Your task to perform on an android device: allow notifications from all sites in the chrome app Image 0: 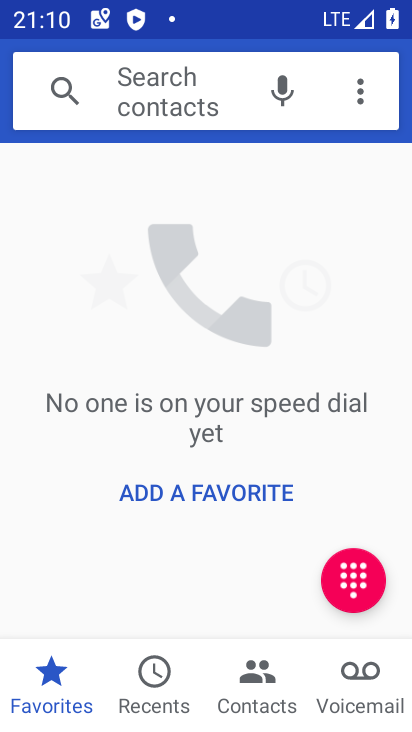
Step 0: press home button
Your task to perform on an android device: allow notifications from all sites in the chrome app Image 1: 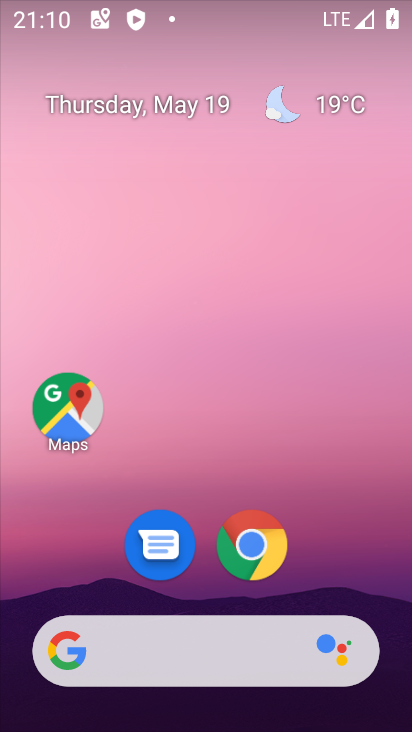
Step 1: click (264, 552)
Your task to perform on an android device: allow notifications from all sites in the chrome app Image 2: 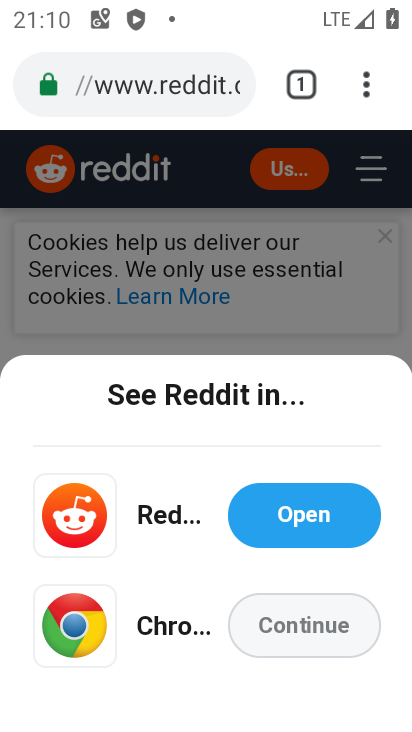
Step 2: click (364, 95)
Your task to perform on an android device: allow notifications from all sites in the chrome app Image 3: 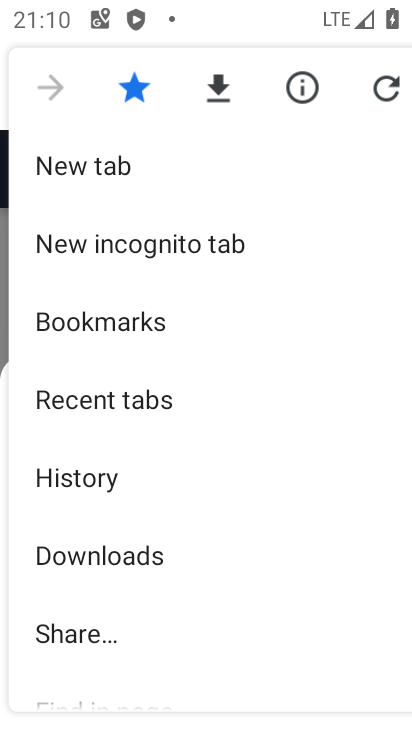
Step 3: drag from (259, 557) to (278, 296)
Your task to perform on an android device: allow notifications from all sites in the chrome app Image 4: 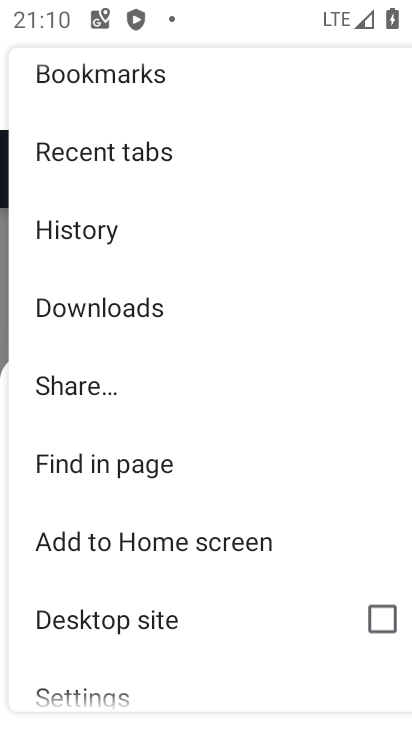
Step 4: drag from (165, 664) to (281, 251)
Your task to perform on an android device: allow notifications from all sites in the chrome app Image 5: 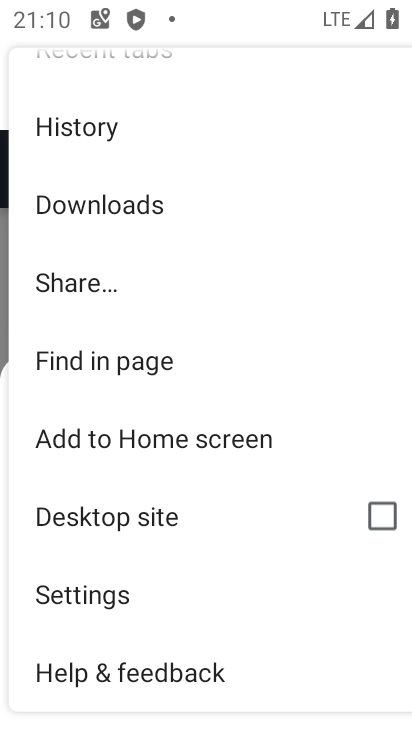
Step 5: click (164, 578)
Your task to perform on an android device: allow notifications from all sites in the chrome app Image 6: 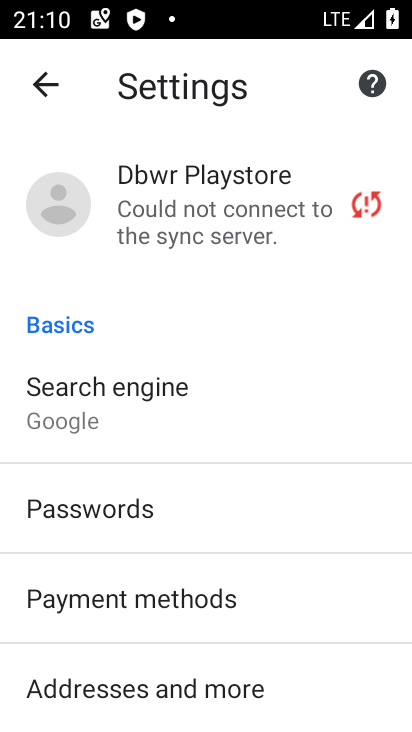
Step 6: drag from (204, 605) to (209, 211)
Your task to perform on an android device: allow notifications from all sites in the chrome app Image 7: 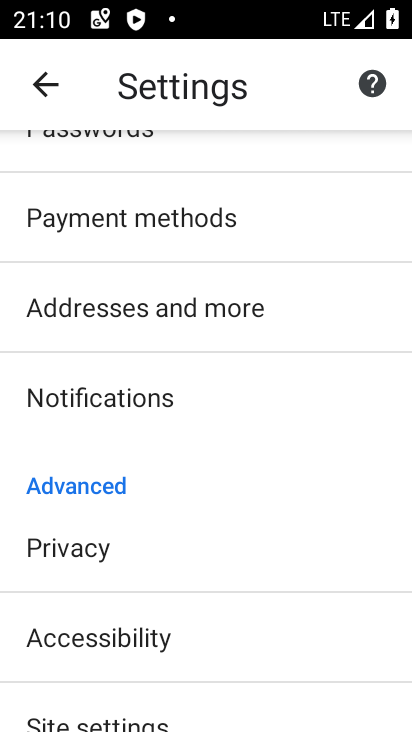
Step 7: drag from (207, 591) to (256, 247)
Your task to perform on an android device: allow notifications from all sites in the chrome app Image 8: 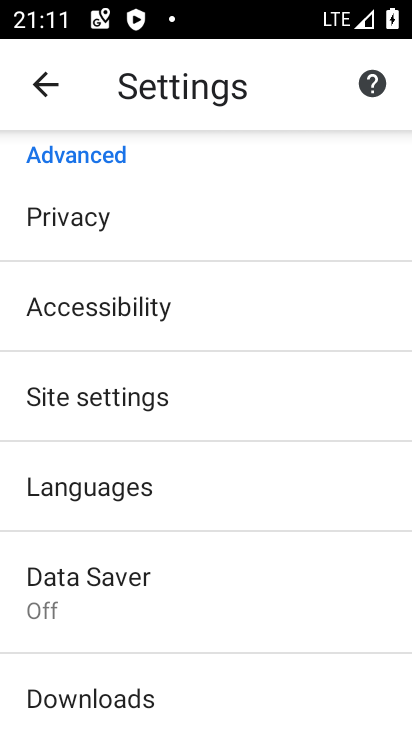
Step 8: click (253, 416)
Your task to perform on an android device: allow notifications from all sites in the chrome app Image 9: 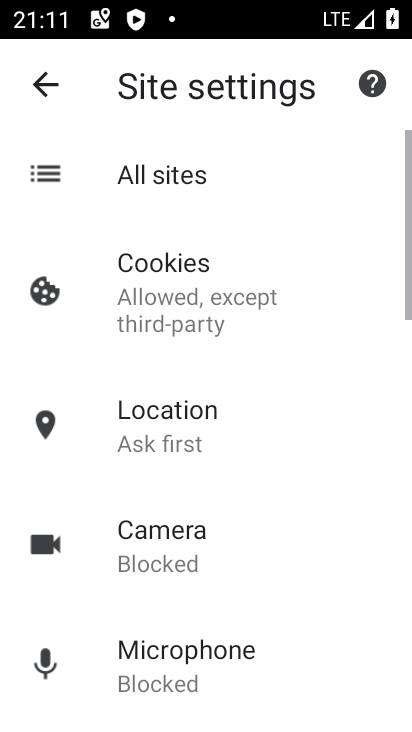
Step 9: task complete